Your task to perform on an android device: Search for Mexican restaurants on Maps Image 0: 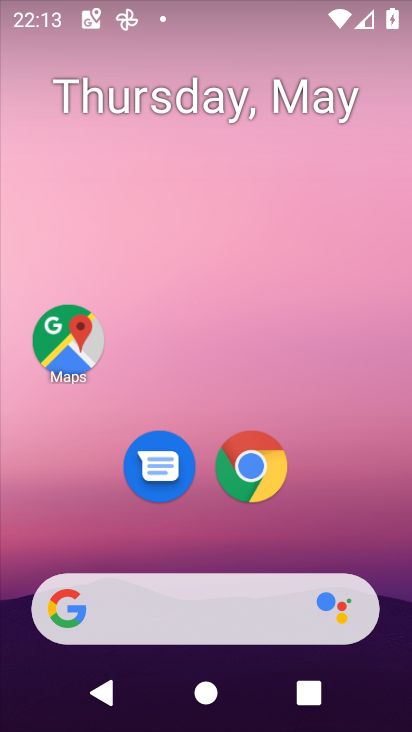
Step 0: click (69, 331)
Your task to perform on an android device: Search for Mexican restaurants on Maps Image 1: 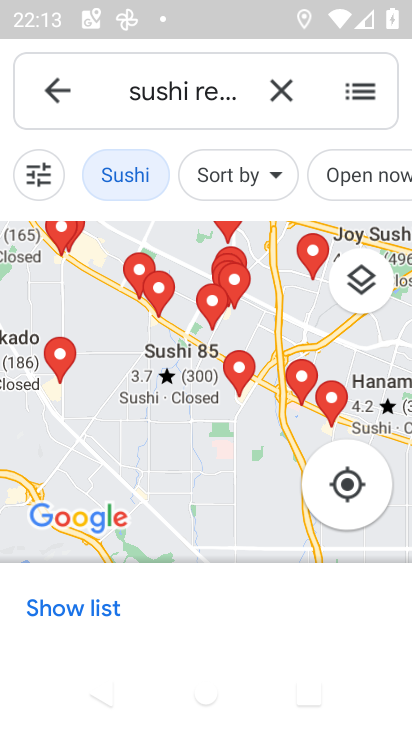
Step 1: click (276, 106)
Your task to perform on an android device: Search for Mexican restaurants on Maps Image 2: 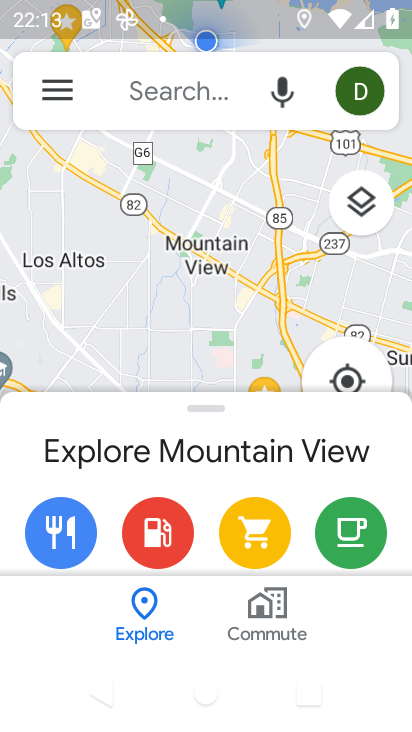
Step 2: click (180, 98)
Your task to perform on an android device: Search for Mexican restaurants on Maps Image 3: 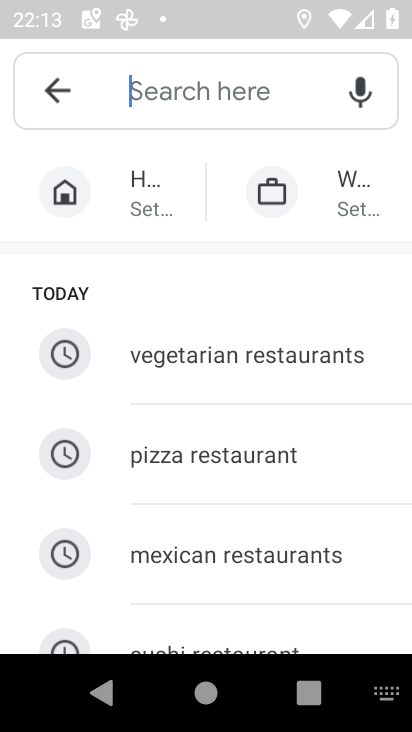
Step 3: click (202, 544)
Your task to perform on an android device: Search for Mexican restaurants on Maps Image 4: 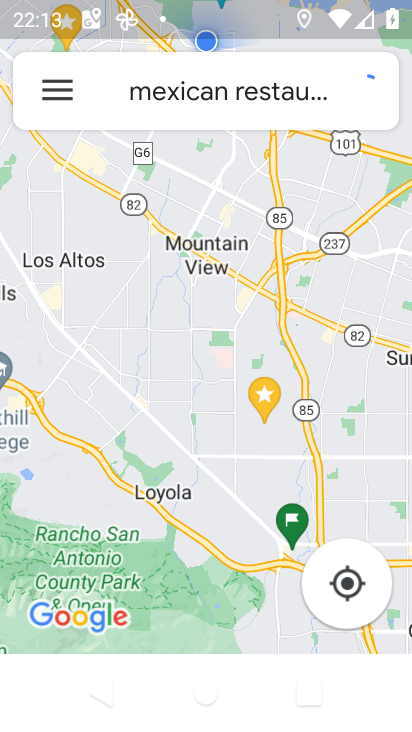
Step 4: task complete